Your task to perform on an android device: turn on the 12-hour format for clock Image 0: 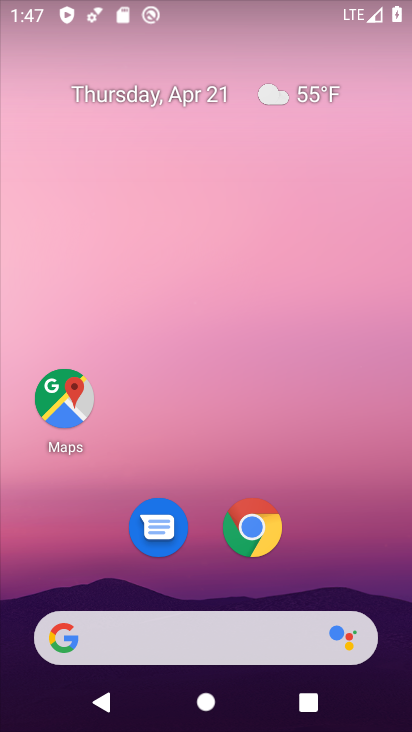
Step 0: drag from (358, 567) to (356, 143)
Your task to perform on an android device: turn on the 12-hour format for clock Image 1: 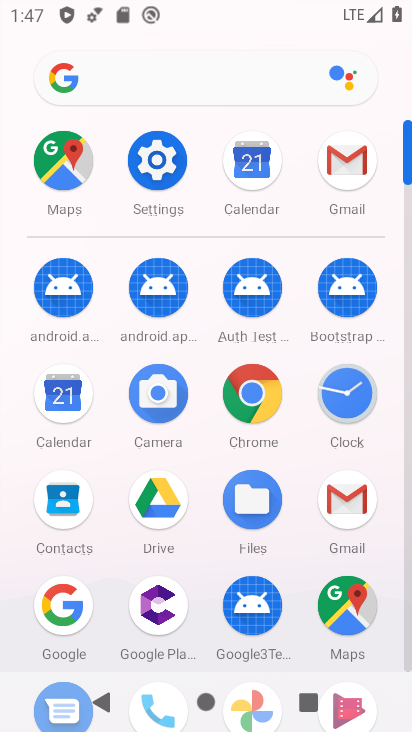
Step 1: click (333, 405)
Your task to perform on an android device: turn on the 12-hour format for clock Image 2: 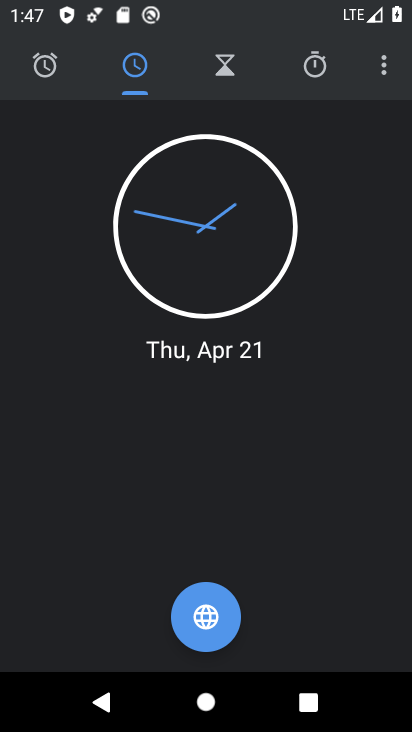
Step 2: click (387, 65)
Your task to perform on an android device: turn on the 12-hour format for clock Image 3: 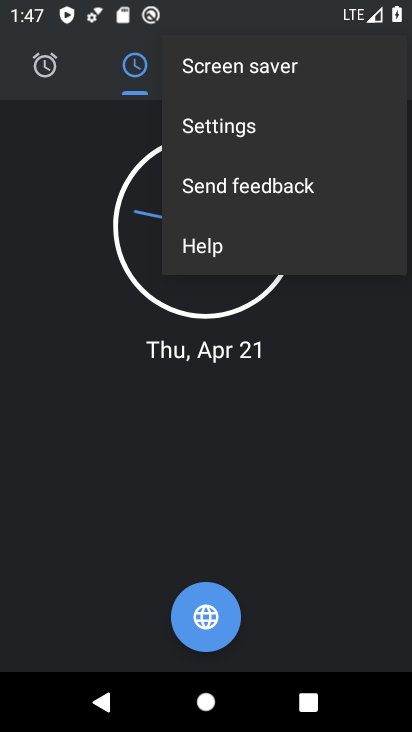
Step 3: click (245, 128)
Your task to perform on an android device: turn on the 12-hour format for clock Image 4: 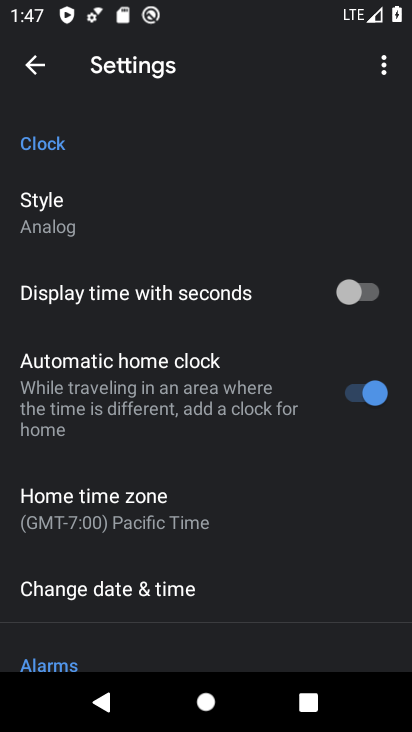
Step 4: drag from (302, 568) to (319, 430)
Your task to perform on an android device: turn on the 12-hour format for clock Image 5: 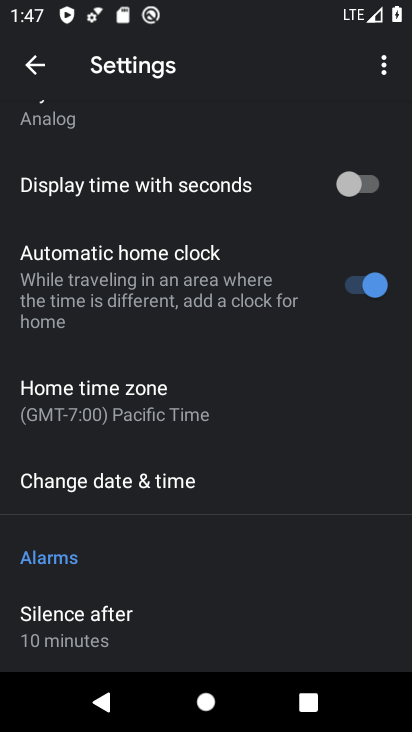
Step 5: drag from (322, 563) to (319, 441)
Your task to perform on an android device: turn on the 12-hour format for clock Image 6: 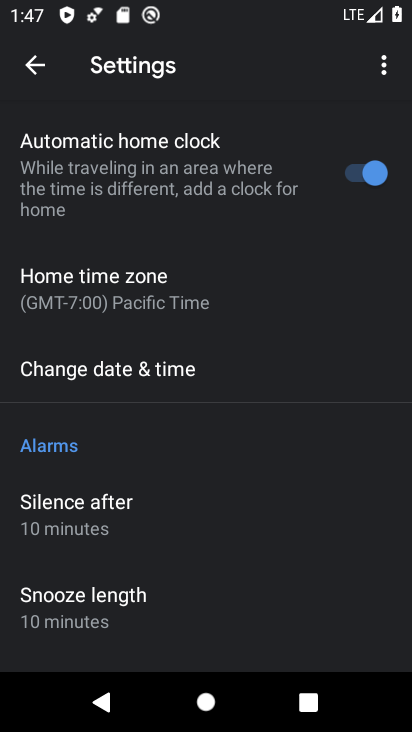
Step 6: drag from (327, 558) to (330, 407)
Your task to perform on an android device: turn on the 12-hour format for clock Image 7: 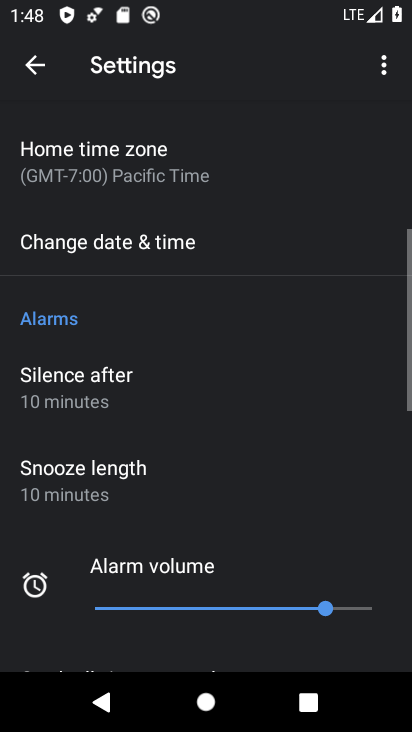
Step 7: drag from (355, 511) to (357, 349)
Your task to perform on an android device: turn on the 12-hour format for clock Image 8: 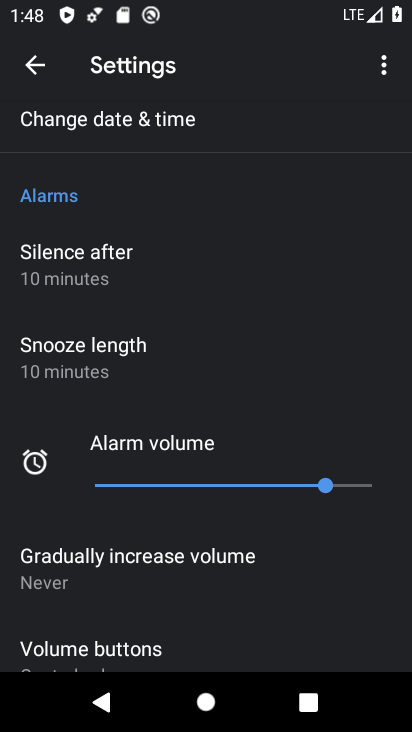
Step 8: drag from (363, 588) to (369, 408)
Your task to perform on an android device: turn on the 12-hour format for clock Image 9: 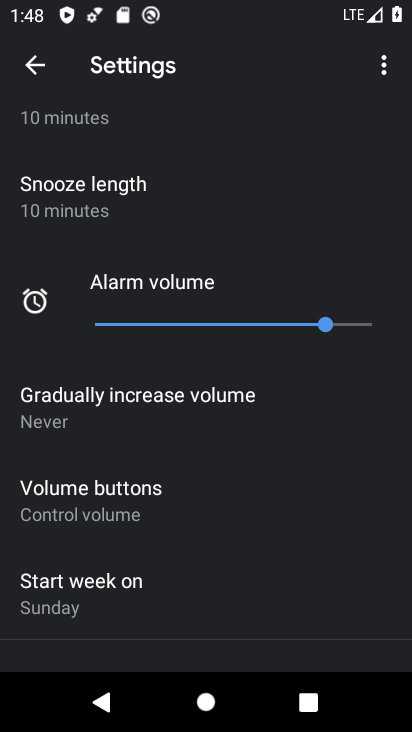
Step 9: drag from (370, 537) to (373, 339)
Your task to perform on an android device: turn on the 12-hour format for clock Image 10: 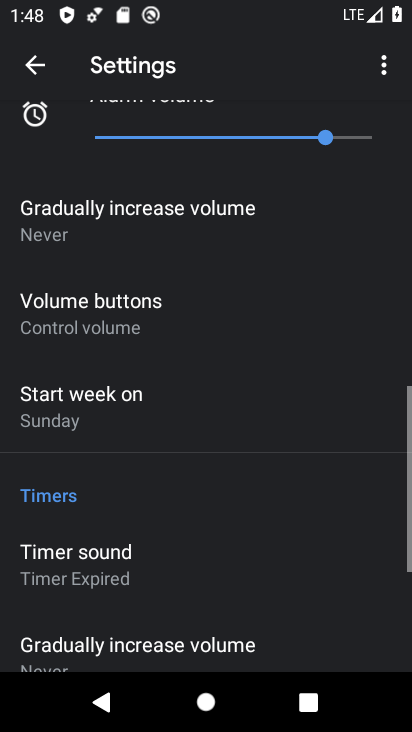
Step 10: drag from (364, 514) to (355, 314)
Your task to perform on an android device: turn on the 12-hour format for clock Image 11: 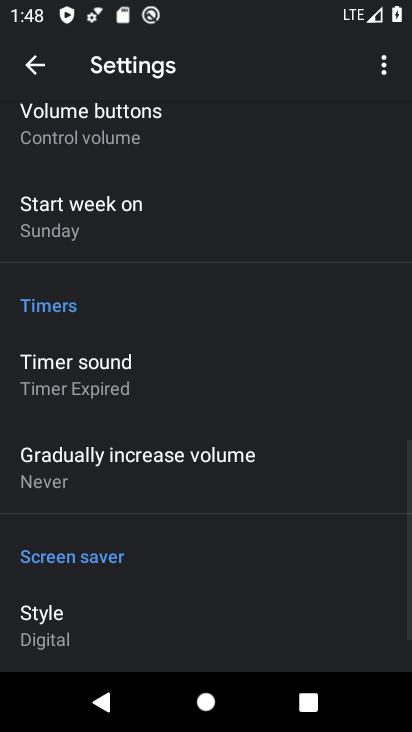
Step 11: drag from (351, 541) to (360, 367)
Your task to perform on an android device: turn on the 12-hour format for clock Image 12: 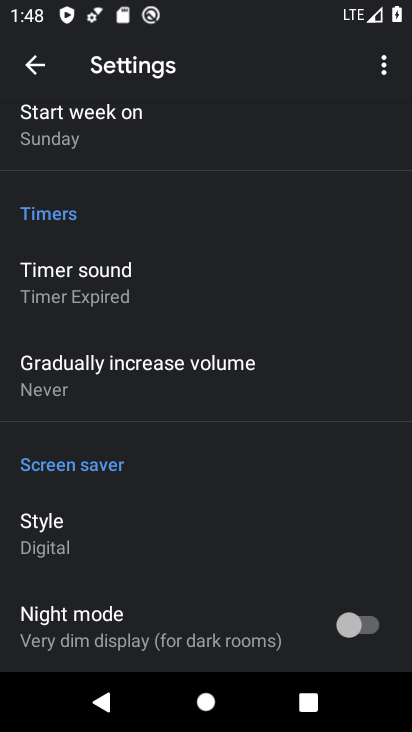
Step 12: drag from (355, 245) to (362, 451)
Your task to perform on an android device: turn on the 12-hour format for clock Image 13: 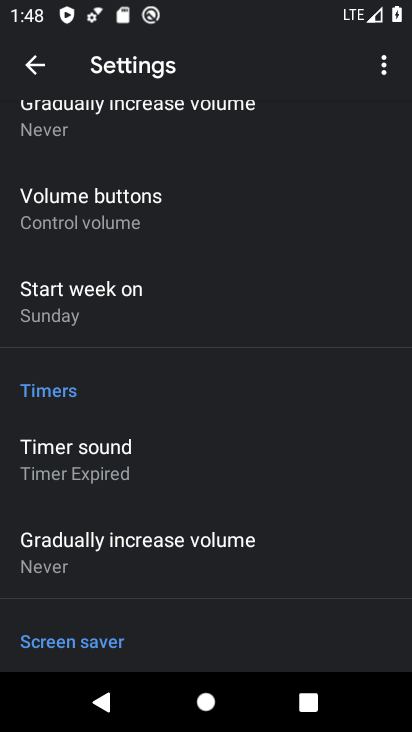
Step 13: drag from (380, 329) to (363, 463)
Your task to perform on an android device: turn on the 12-hour format for clock Image 14: 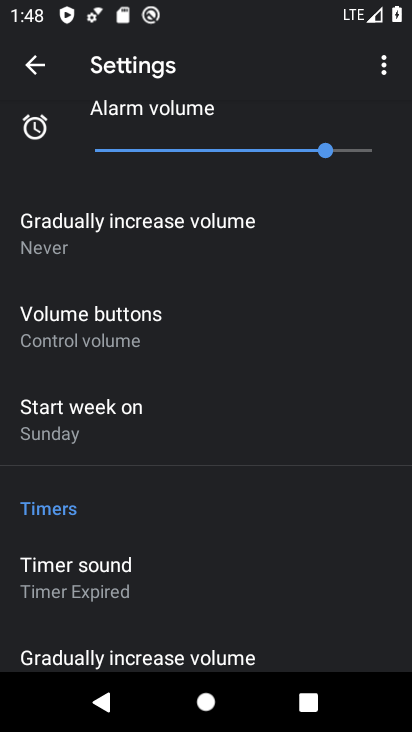
Step 14: drag from (369, 239) to (357, 427)
Your task to perform on an android device: turn on the 12-hour format for clock Image 15: 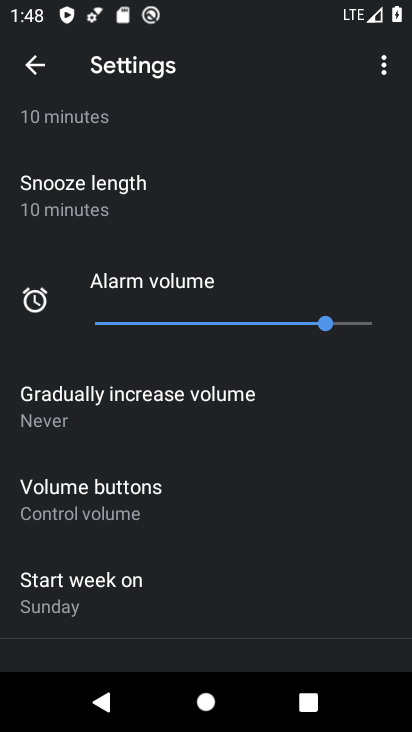
Step 15: drag from (371, 245) to (366, 419)
Your task to perform on an android device: turn on the 12-hour format for clock Image 16: 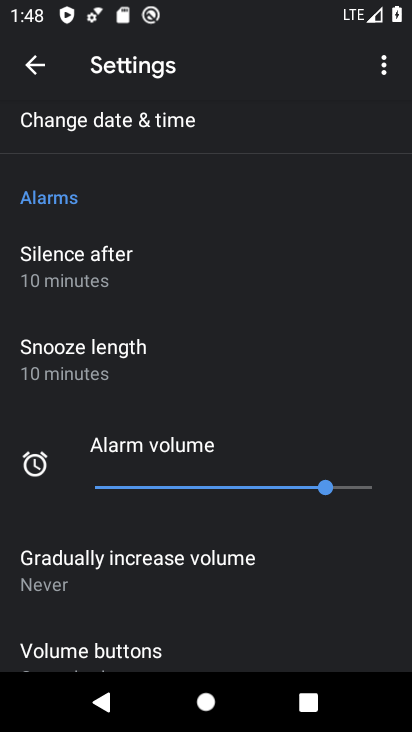
Step 16: drag from (342, 223) to (342, 386)
Your task to perform on an android device: turn on the 12-hour format for clock Image 17: 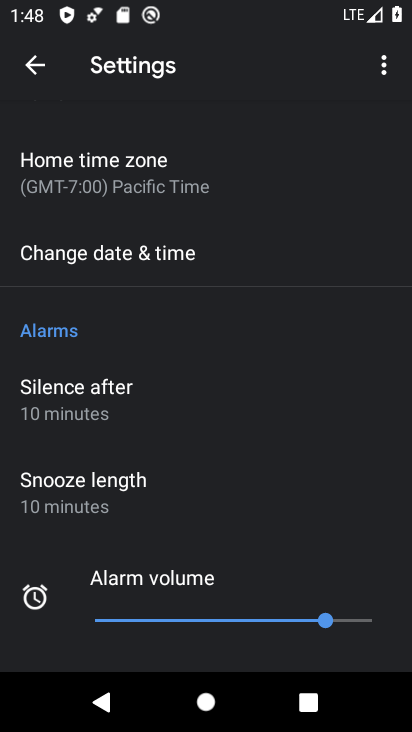
Step 17: click (212, 265)
Your task to perform on an android device: turn on the 12-hour format for clock Image 18: 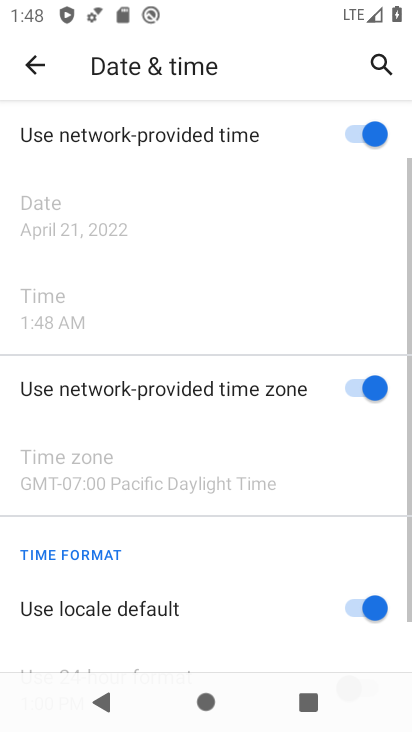
Step 18: task complete